Your task to perform on an android device: Open my contact list Image 0: 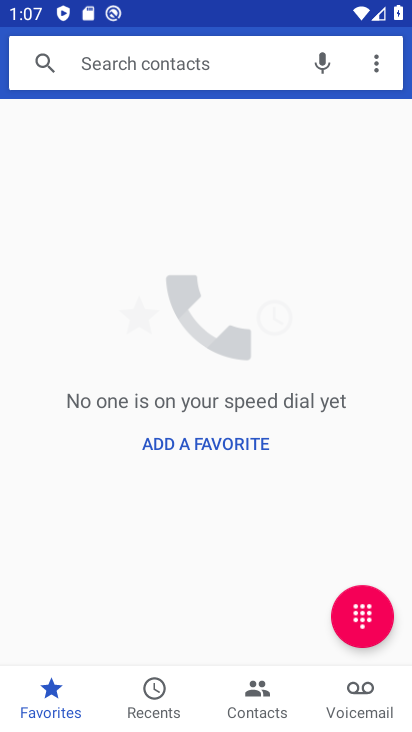
Step 0: click (249, 683)
Your task to perform on an android device: Open my contact list Image 1: 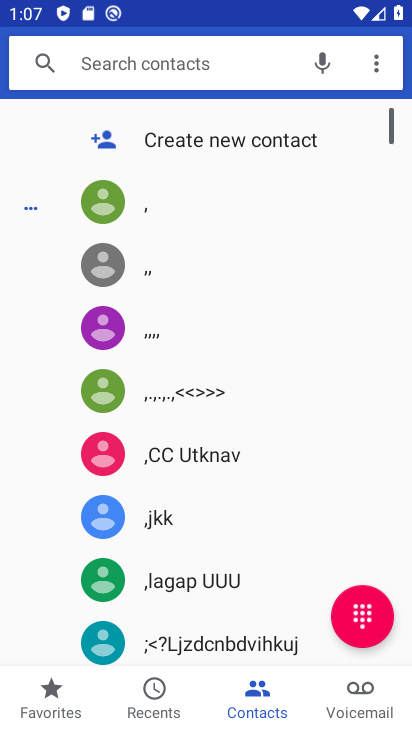
Step 1: task complete